Your task to perform on an android device: Clear all items from cart on bestbuy.com. Search for usb-c to usb-a on bestbuy.com, select the first entry, and add it to the cart. Image 0: 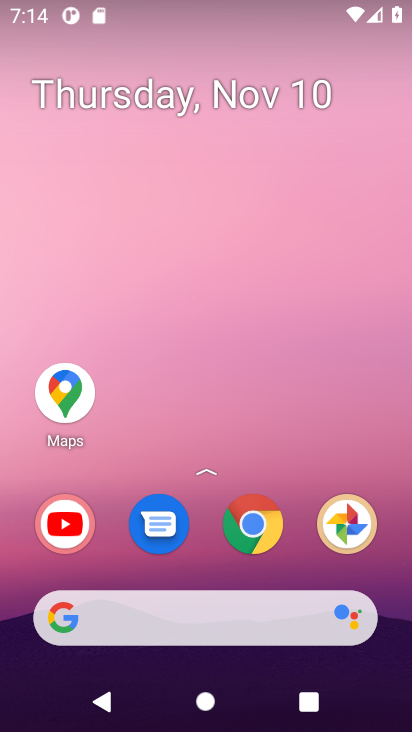
Step 0: click (208, 606)
Your task to perform on an android device: Clear all items from cart on bestbuy.com. Search for usb-c to usb-a on bestbuy.com, select the first entry, and add it to the cart. Image 1: 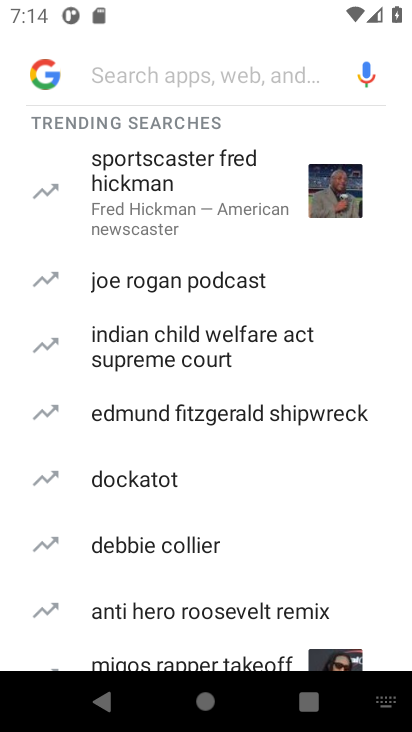
Step 1: type "bestbuy"
Your task to perform on an android device: Clear all items from cart on bestbuy.com. Search for usb-c to usb-a on bestbuy.com, select the first entry, and add it to the cart. Image 2: 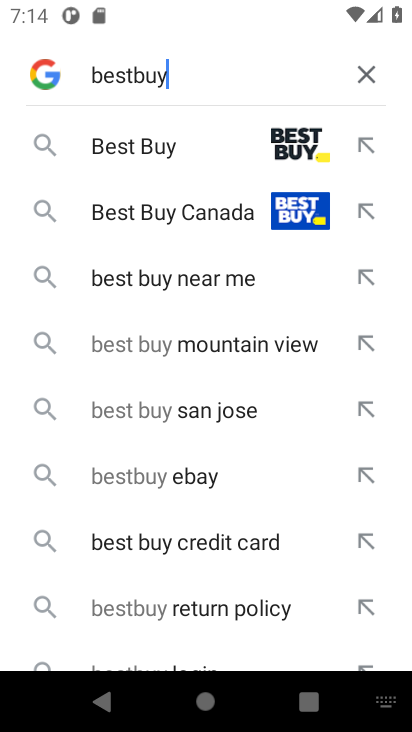
Step 2: click (292, 136)
Your task to perform on an android device: Clear all items from cart on bestbuy.com. Search for usb-c to usb-a on bestbuy.com, select the first entry, and add it to the cart. Image 3: 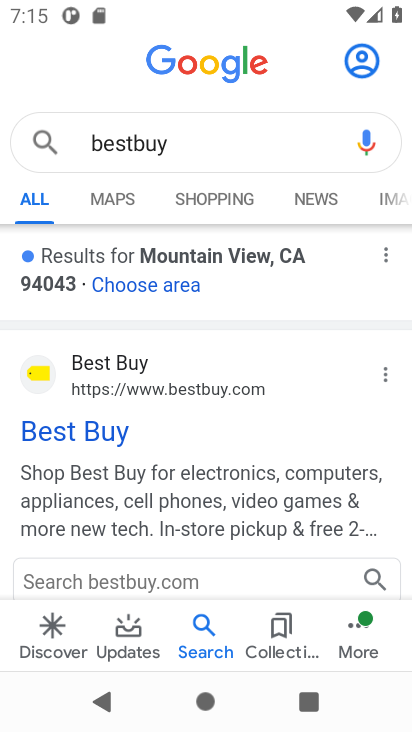
Step 3: click (139, 583)
Your task to perform on an android device: Clear all items from cart on bestbuy.com. Search for usb-c to usb-a on bestbuy.com, select the first entry, and add it to the cart. Image 4: 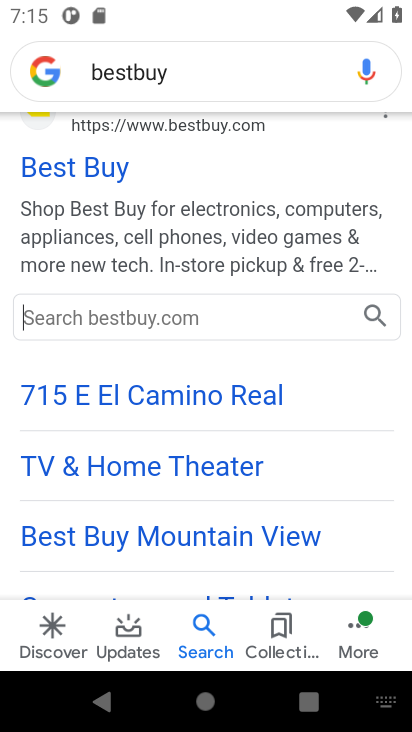
Step 4: type "usb-c to usb-a"
Your task to perform on an android device: Clear all items from cart on bestbuy.com. Search for usb-c to usb-a on bestbuy.com, select the first entry, and add it to the cart. Image 5: 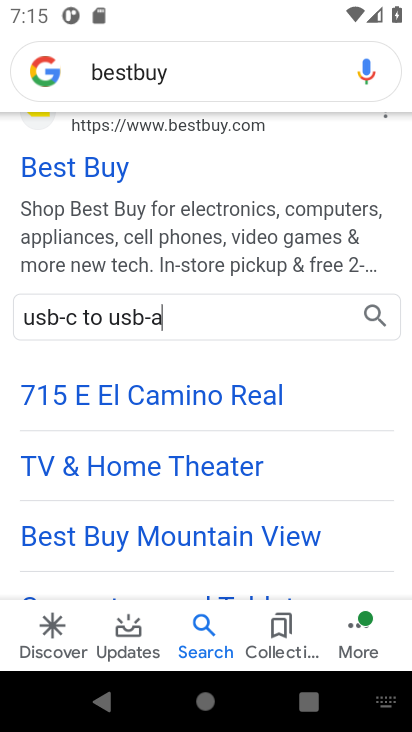
Step 5: click (373, 314)
Your task to perform on an android device: Clear all items from cart on bestbuy.com. Search for usb-c to usb-a on bestbuy.com, select the first entry, and add it to the cart. Image 6: 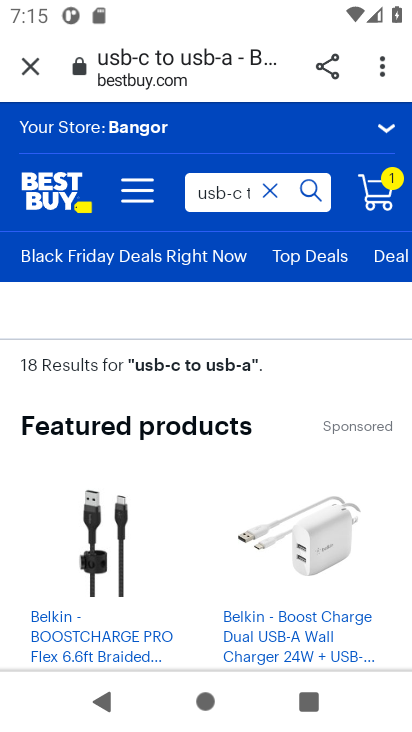
Step 6: click (375, 196)
Your task to perform on an android device: Clear all items from cart on bestbuy.com. Search for usb-c to usb-a on bestbuy.com, select the first entry, and add it to the cart. Image 7: 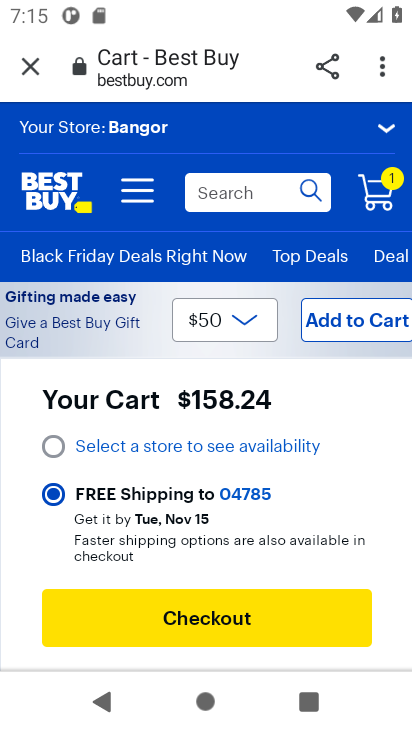
Step 7: drag from (300, 541) to (280, 127)
Your task to perform on an android device: Clear all items from cart on bestbuy.com. Search for usb-c to usb-a on bestbuy.com, select the first entry, and add it to the cart. Image 8: 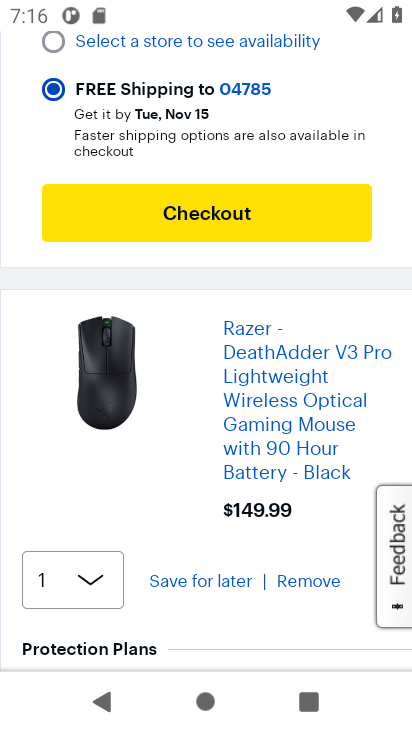
Step 8: click (310, 579)
Your task to perform on an android device: Clear all items from cart on bestbuy.com. Search for usb-c to usb-a on bestbuy.com, select the first entry, and add it to the cart. Image 9: 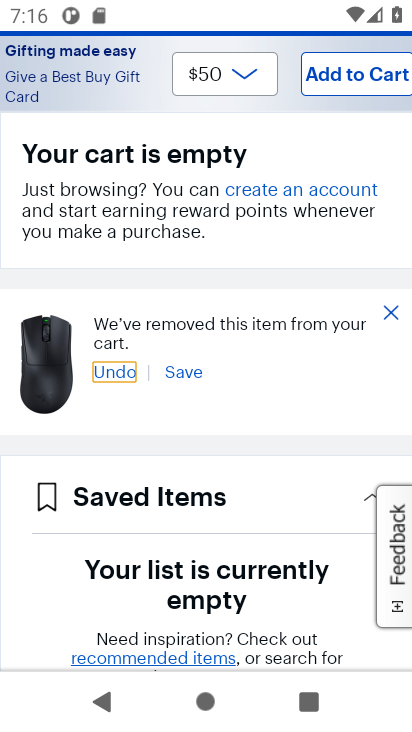
Step 9: drag from (286, 263) to (271, 700)
Your task to perform on an android device: Clear all items from cart on bestbuy.com. Search for usb-c to usb-a on bestbuy.com, select the first entry, and add it to the cart. Image 10: 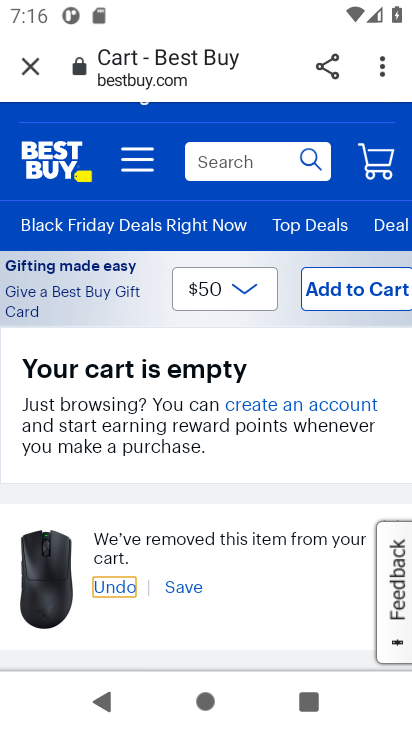
Step 10: click (239, 164)
Your task to perform on an android device: Clear all items from cart on bestbuy.com. Search for usb-c to usb-a on bestbuy.com, select the first entry, and add it to the cart. Image 11: 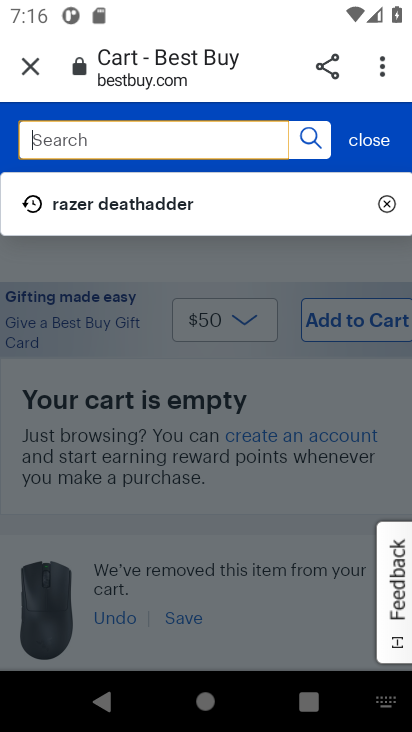
Step 11: type "usb-c to usb-a "
Your task to perform on an android device: Clear all items from cart on bestbuy.com. Search for usb-c to usb-a on bestbuy.com, select the first entry, and add it to the cart. Image 12: 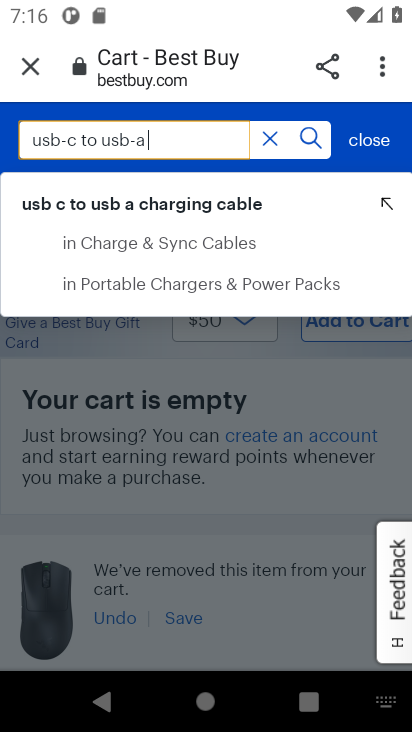
Step 12: click (213, 244)
Your task to perform on an android device: Clear all items from cart on bestbuy.com. Search for usb-c to usb-a on bestbuy.com, select the first entry, and add it to the cart. Image 13: 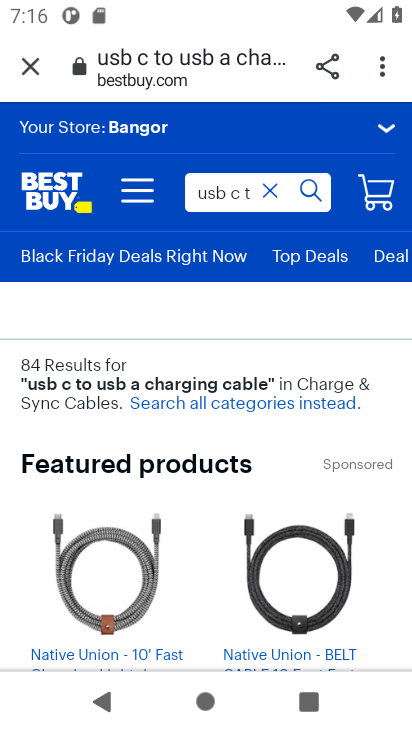
Step 13: drag from (346, 461) to (200, 42)
Your task to perform on an android device: Clear all items from cart on bestbuy.com. Search for usb-c to usb-a on bestbuy.com, select the first entry, and add it to the cart. Image 14: 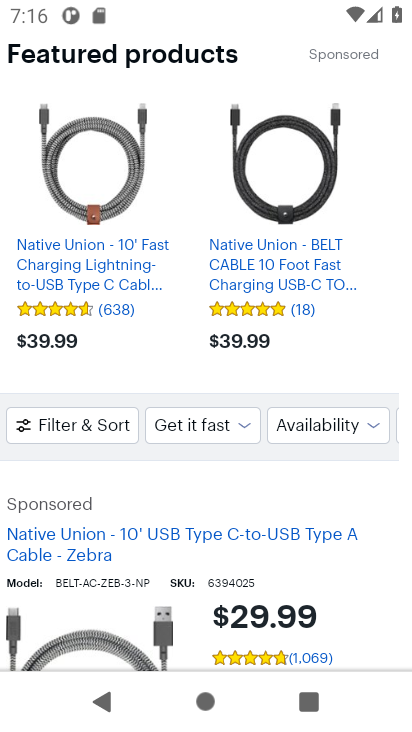
Step 14: drag from (155, 569) to (213, 290)
Your task to perform on an android device: Clear all items from cart on bestbuy.com. Search for usb-c to usb-a on bestbuy.com, select the first entry, and add it to the cart. Image 15: 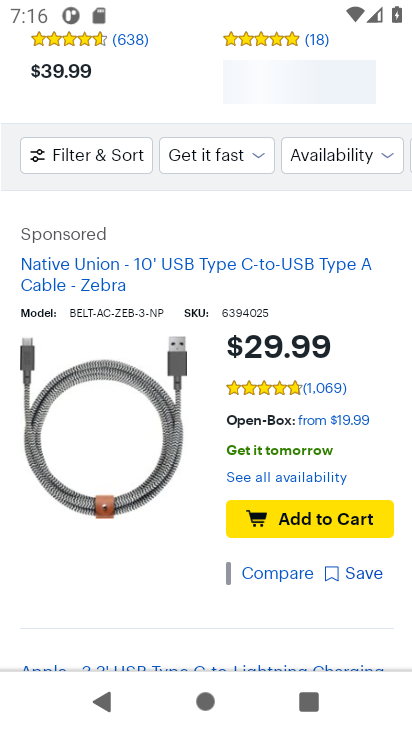
Step 15: click (305, 525)
Your task to perform on an android device: Clear all items from cart on bestbuy.com. Search for usb-c to usb-a on bestbuy.com, select the first entry, and add it to the cart. Image 16: 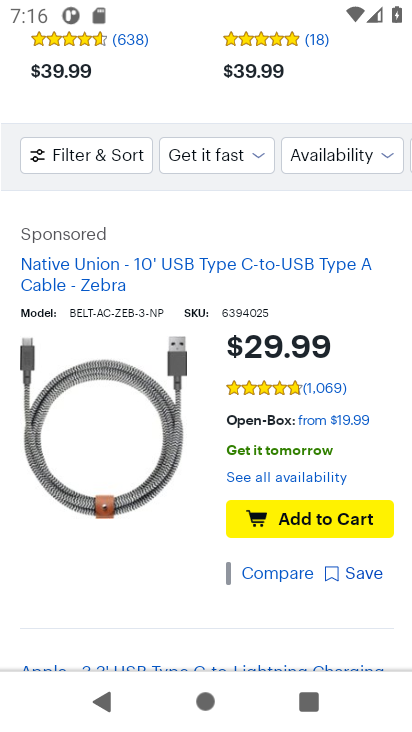
Step 16: task complete